Your task to perform on an android device: Show me productivity apps on the Play Store Image 0: 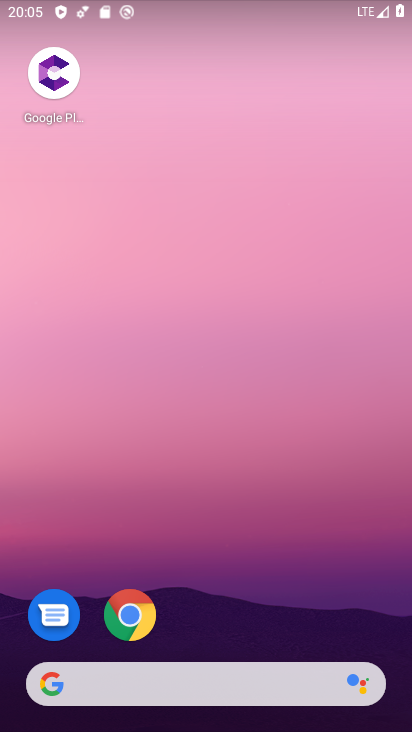
Step 0: drag from (195, 650) to (228, 238)
Your task to perform on an android device: Show me productivity apps on the Play Store Image 1: 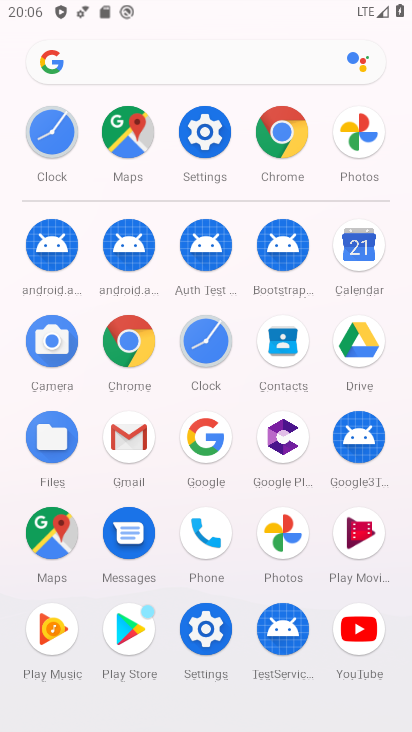
Step 1: click (141, 620)
Your task to perform on an android device: Show me productivity apps on the Play Store Image 2: 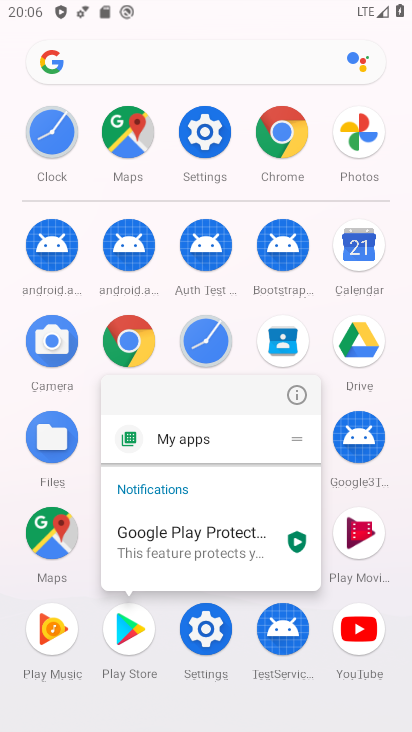
Step 2: click (295, 394)
Your task to perform on an android device: Show me productivity apps on the Play Store Image 3: 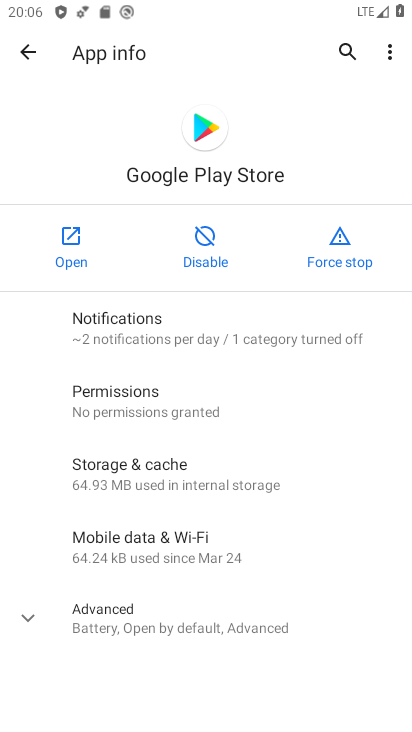
Step 3: click (66, 262)
Your task to perform on an android device: Show me productivity apps on the Play Store Image 4: 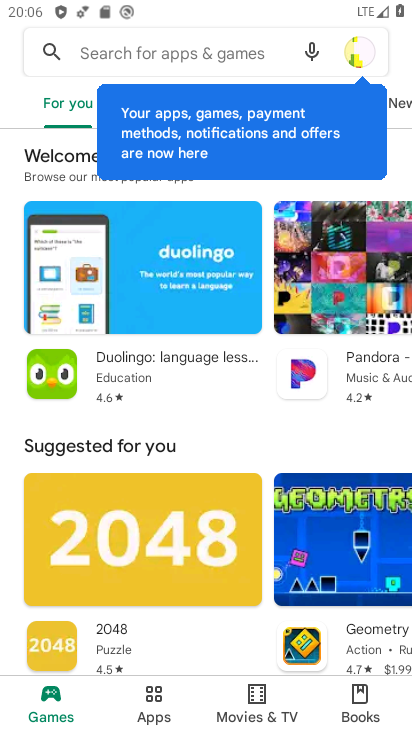
Step 4: click (361, 53)
Your task to perform on an android device: Show me productivity apps on the Play Store Image 5: 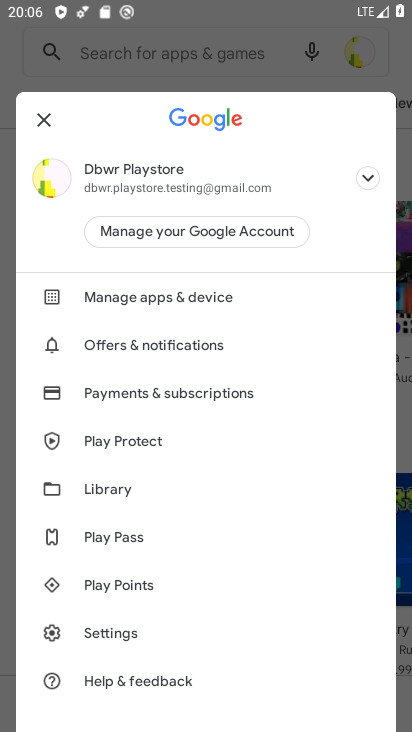
Step 5: drag from (181, 571) to (239, 256)
Your task to perform on an android device: Show me productivity apps on the Play Store Image 6: 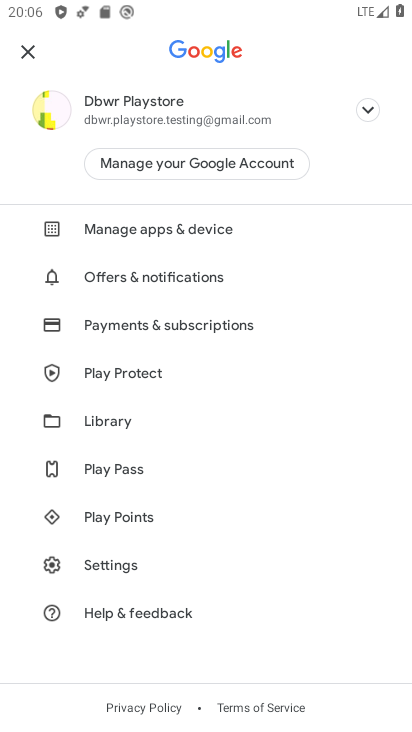
Step 6: click (157, 234)
Your task to perform on an android device: Show me productivity apps on the Play Store Image 7: 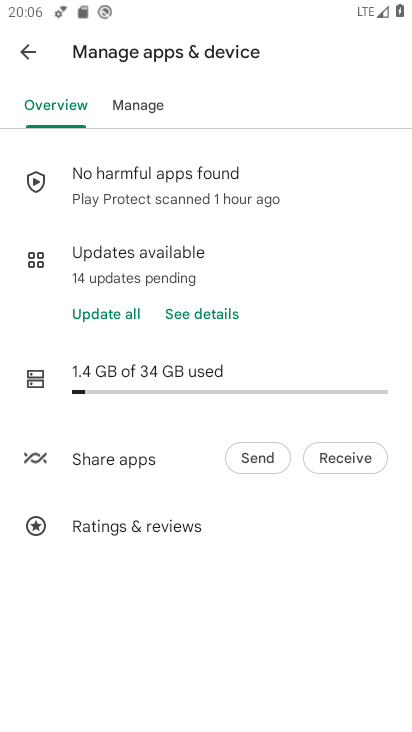
Step 7: click (148, 115)
Your task to perform on an android device: Show me productivity apps on the Play Store Image 8: 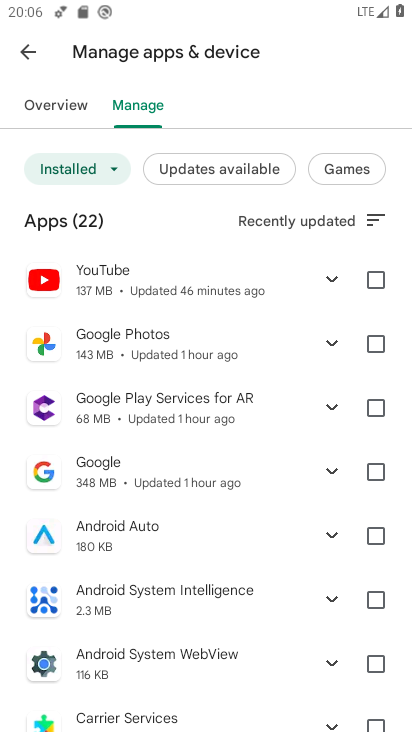
Step 8: drag from (128, 631) to (256, 137)
Your task to perform on an android device: Show me productivity apps on the Play Store Image 9: 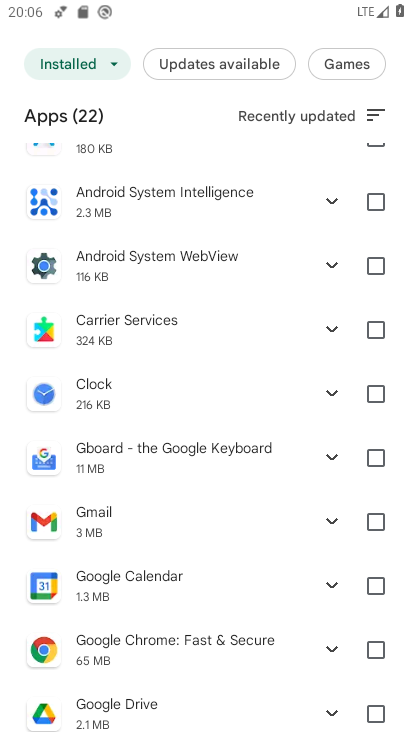
Step 9: drag from (217, 231) to (272, 639)
Your task to perform on an android device: Show me productivity apps on the Play Store Image 10: 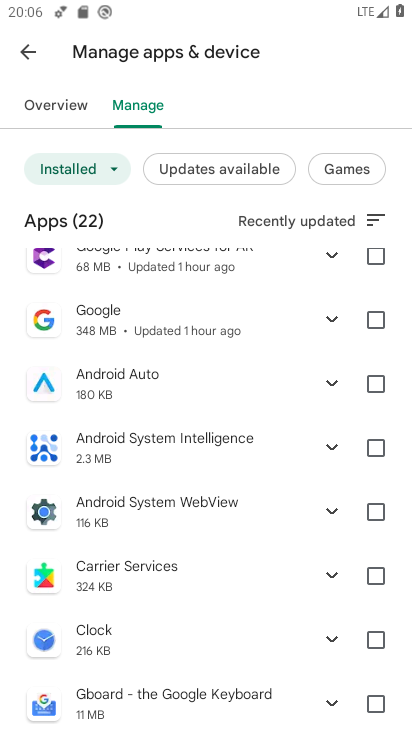
Step 10: click (44, 119)
Your task to perform on an android device: Show me productivity apps on the Play Store Image 11: 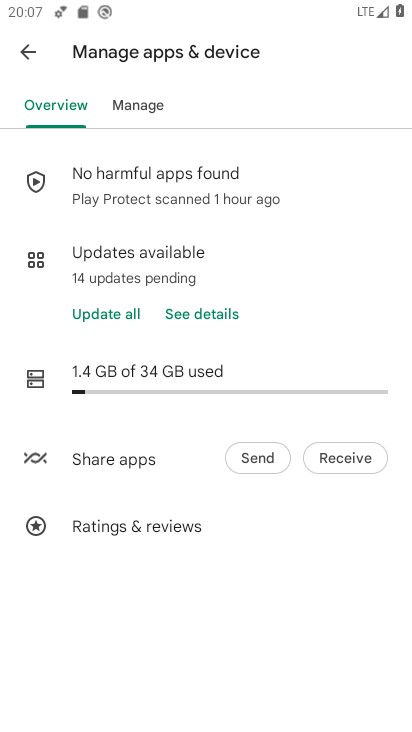
Step 11: click (129, 114)
Your task to perform on an android device: Show me productivity apps on the Play Store Image 12: 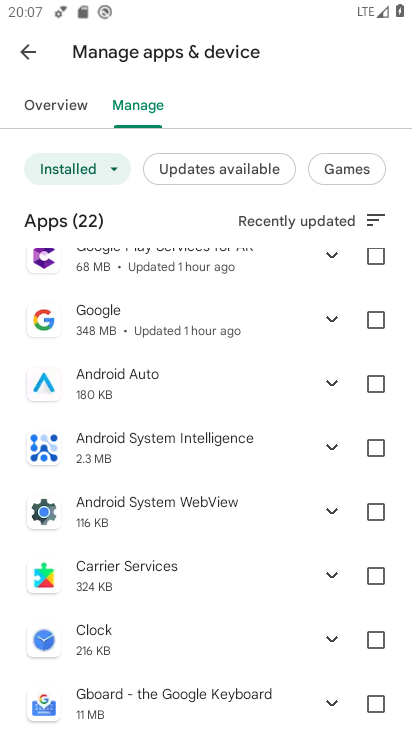
Step 12: click (64, 107)
Your task to perform on an android device: Show me productivity apps on the Play Store Image 13: 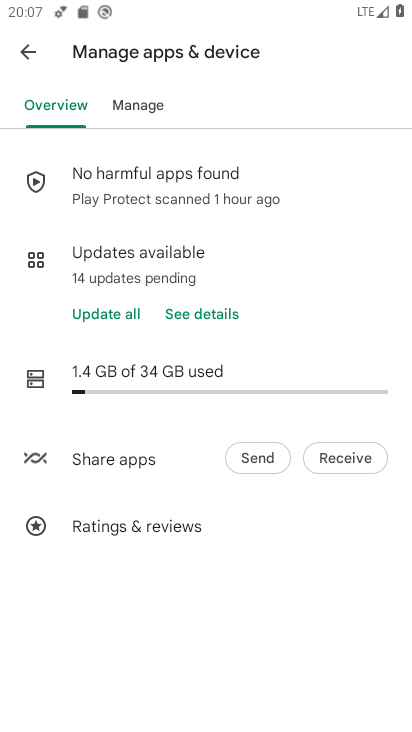
Step 13: click (152, 108)
Your task to perform on an android device: Show me productivity apps on the Play Store Image 14: 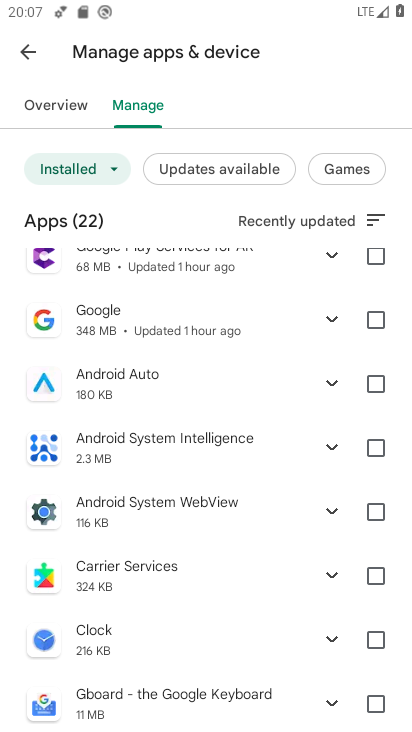
Step 14: drag from (243, 542) to (258, 107)
Your task to perform on an android device: Show me productivity apps on the Play Store Image 15: 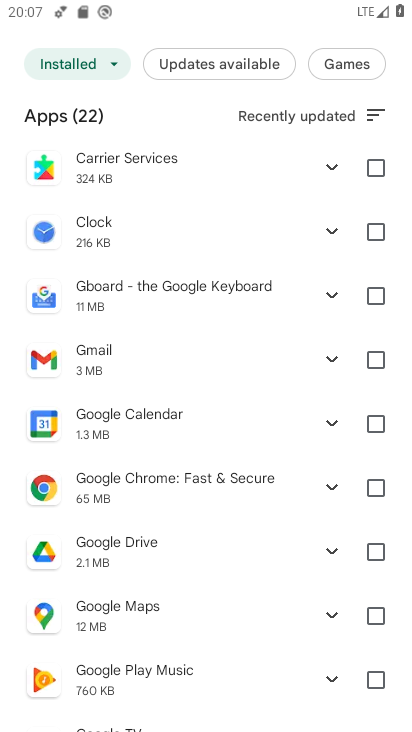
Step 15: drag from (235, 266) to (205, 719)
Your task to perform on an android device: Show me productivity apps on the Play Store Image 16: 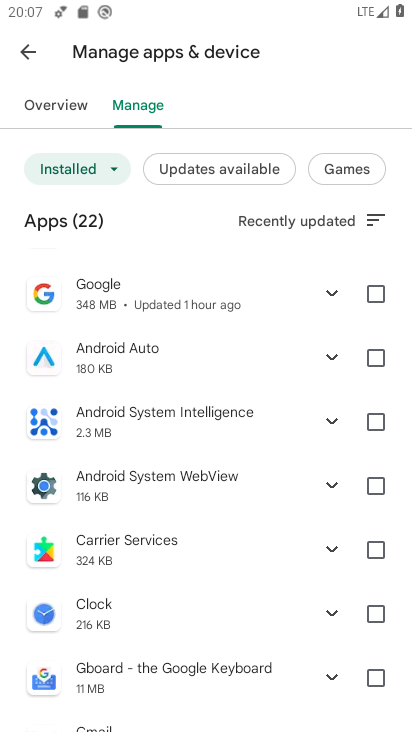
Step 16: click (18, 46)
Your task to perform on an android device: Show me productivity apps on the Play Store Image 17: 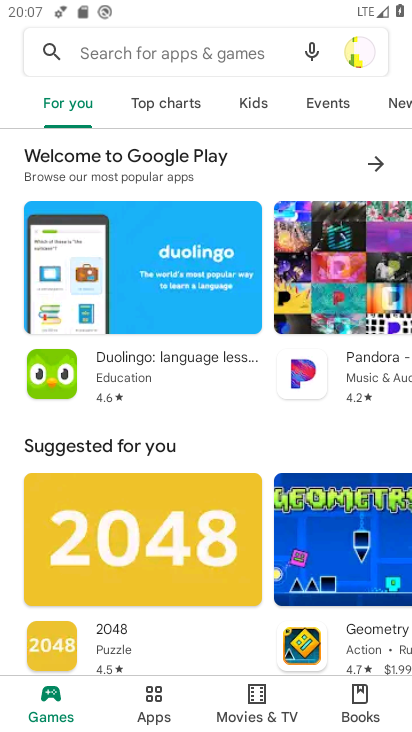
Step 17: click (169, 108)
Your task to perform on an android device: Show me productivity apps on the Play Store Image 18: 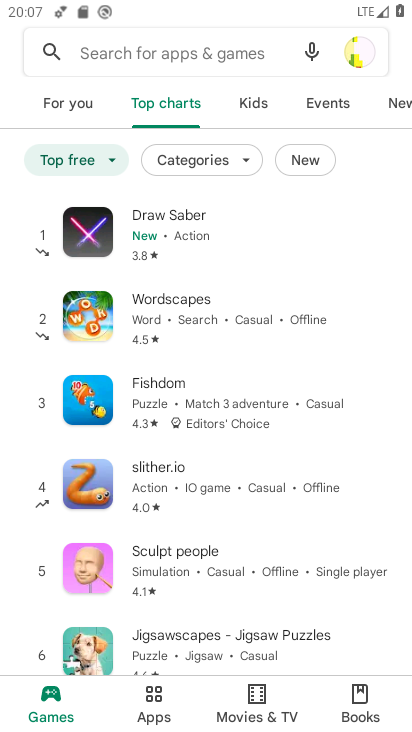
Step 18: click (91, 101)
Your task to perform on an android device: Show me productivity apps on the Play Store Image 19: 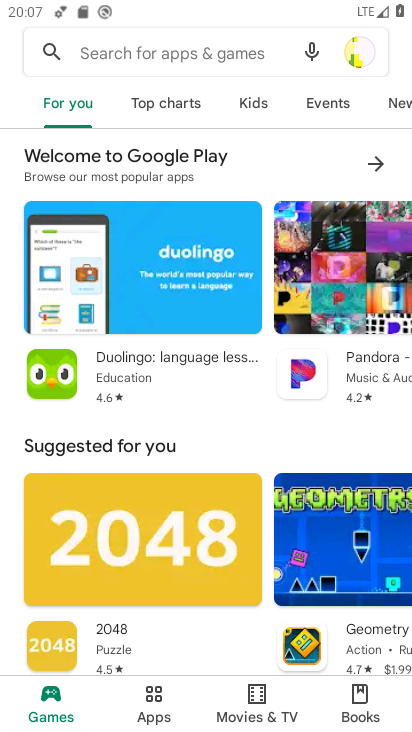
Step 19: task complete